Your task to perform on an android device: allow notifications from all sites in the chrome app Image 0: 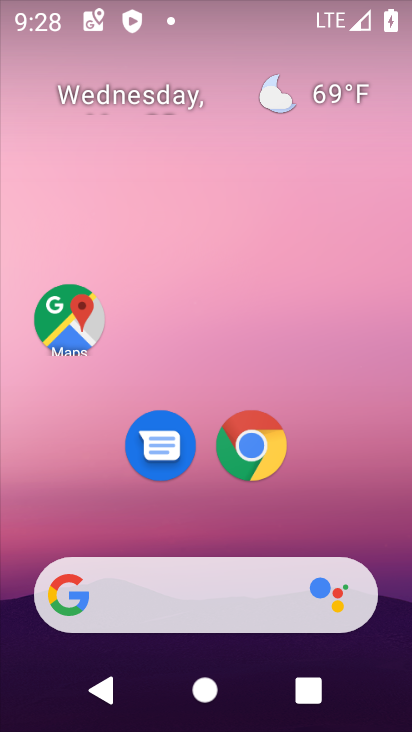
Step 0: click (269, 447)
Your task to perform on an android device: allow notifications from all sites in the chrome app Image 1: 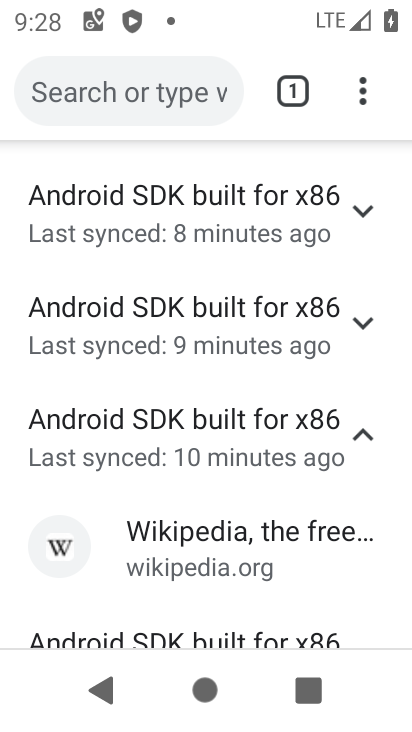
Step 1: drag from (355, 93) to (158, 489)
Your task to perform on an android device: allow notifications from all sites in the chrome app Image 2: 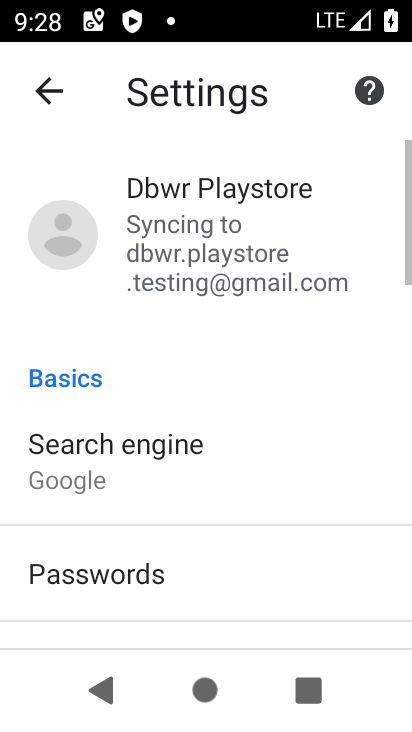
Step 2: drag from (237, 569) to (279, 241)
Your task to perform on an android device: allow notifications from all sites in the chrome app Image 3: 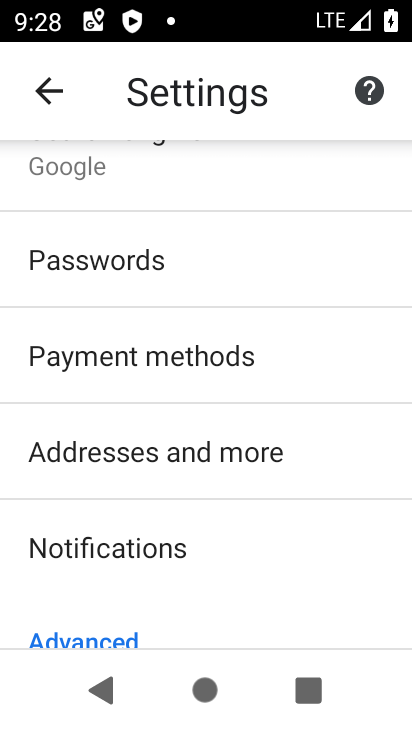
Step 3: drag from (261, 559) to (361, 178)
Your task to perform on an android device: allow notifications from all sites in the chrome app Image 4: 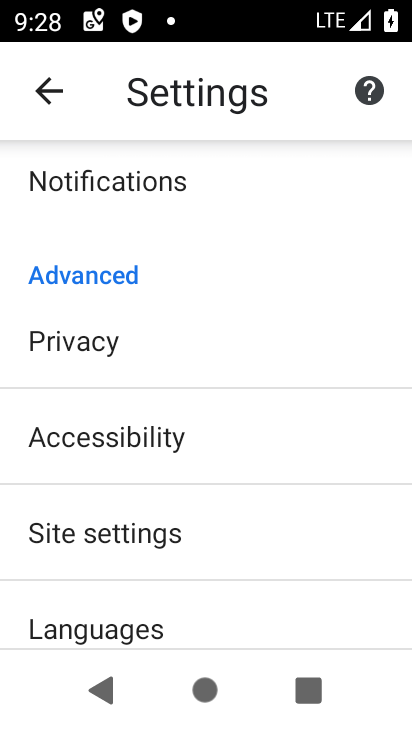
Step 4: click (149, 534)
Your task to perform on an android device: allow notifications from all sites in the chrome app Image 5: 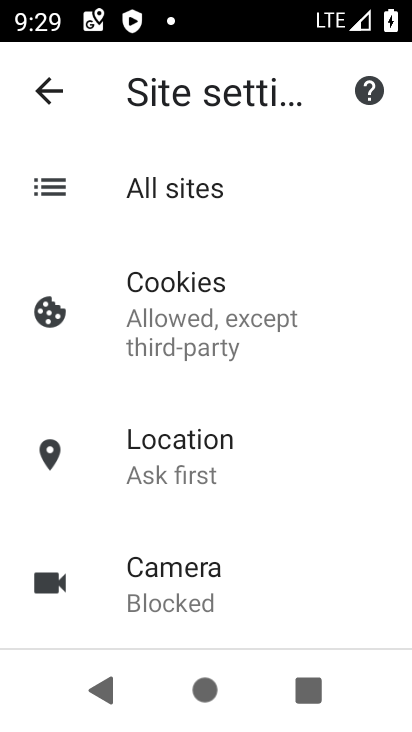
Step 5: click (209, 188)
Your task to perform on an android device: allow notifications from all sites in the chrome app Image 6: 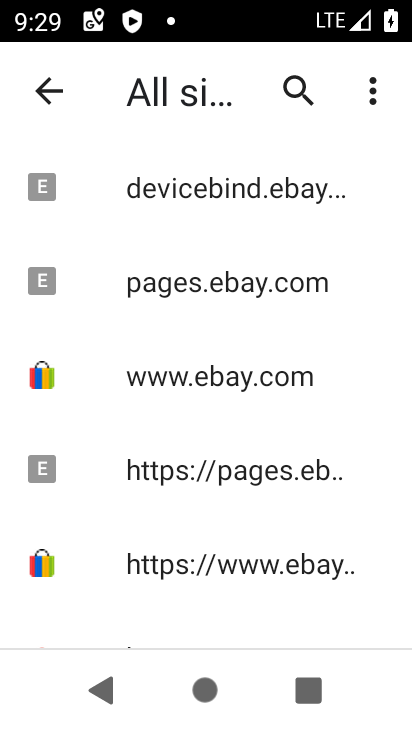
Step 6: drag from (261, 491) to (301, 144)
Your task to perform on an android device: allow notifications from all sites in the chrome app Image 7: 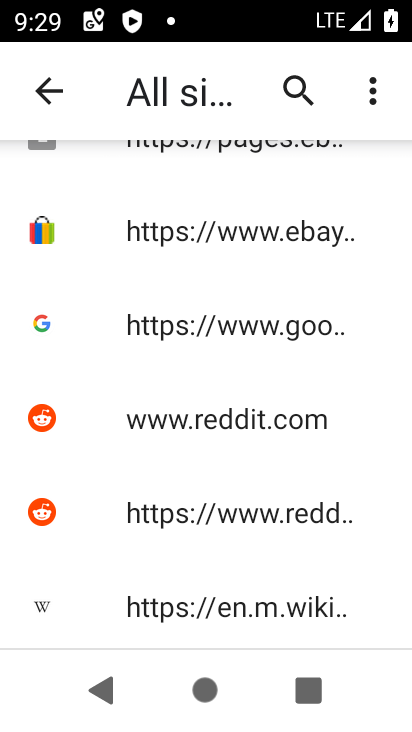
Step 7: drag from (246, 497) to (280, 227)
Your task to perform on an android device: allow notifications from all sites in the chrome app Image 8: 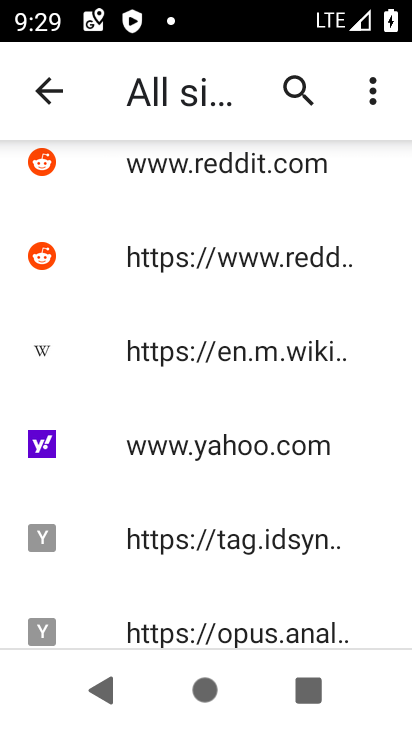
Step 8: drag from (252, 528) to (304, 207)
Your task to perform on an android device: allow notifications from all sites in the chrome app Image 9: 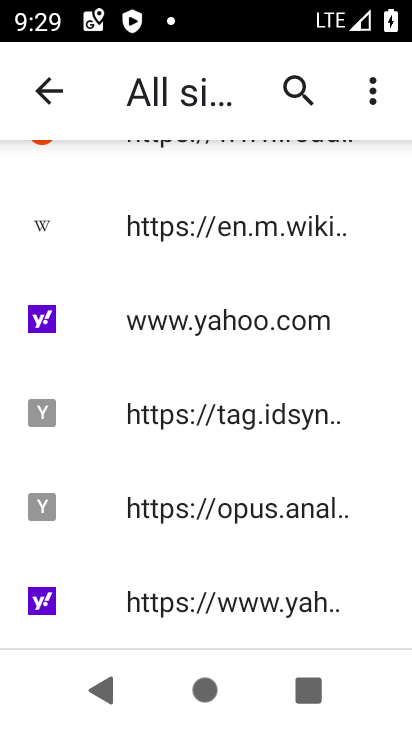
Step 9: drag from (262, 589) to (274, 332)
Your task to perform on an android device: allow notifications from all sites in the chrome app Image 10: 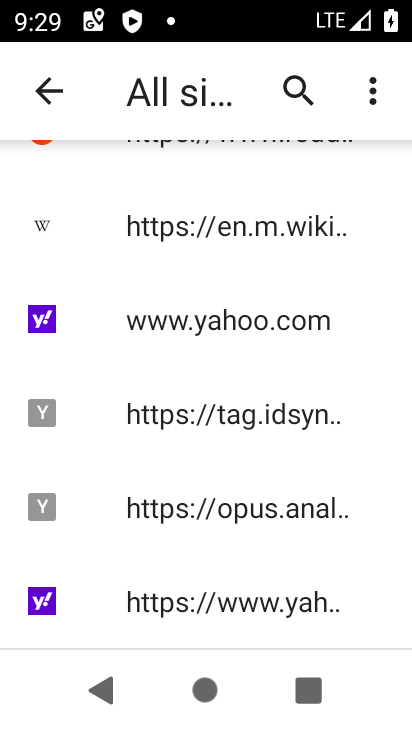
Step 10: drag from (243, 272) to (175, 551)
Your task to perform on an android device: allow notifications from all sites in the chrome app Image 11: 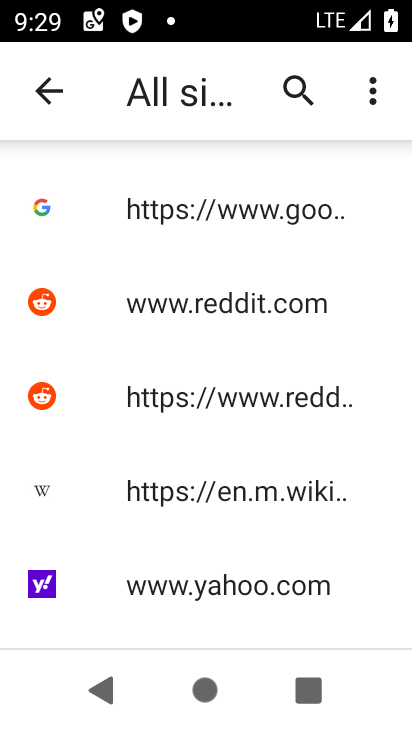
Step 11: drag from (205, 242) to (173, 453)
Your task to perform on an android device: allow notifications from all sites in the chrome app Image 12: 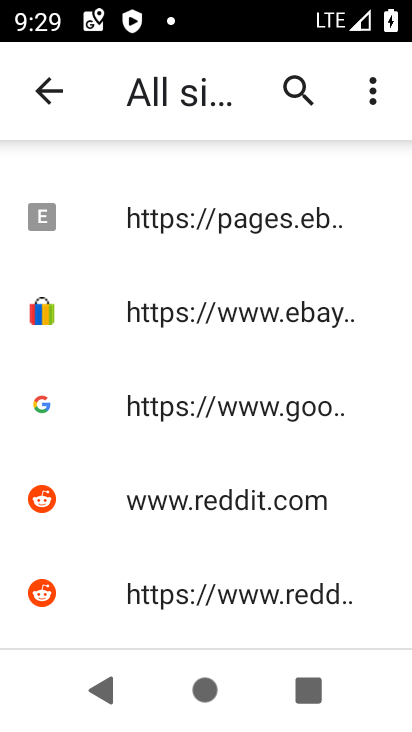
Step 12: drag from (230, 265) to (213, 484)
Your task to perform on an android device: allow notifications from all sites in the chrome app Image 13: 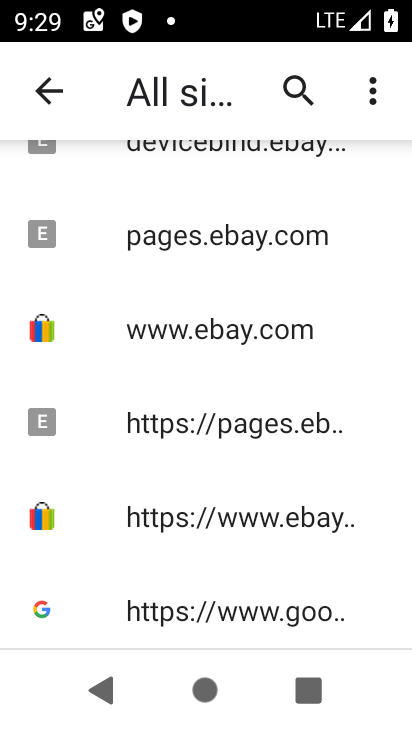
Step 13: drag from (287, 163) to (234, 429)
Your task to perform on an android device: allow notifications from all sites in the chrome app Image 14: 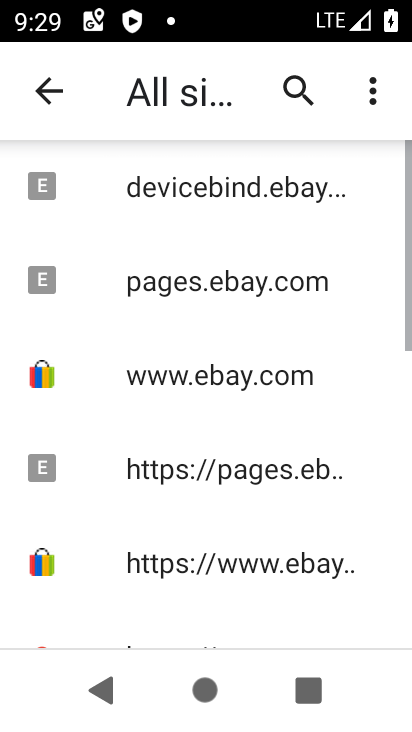
Step 14: click (271, 183)
Your task to perform on an android device: allow notifications from all sites in the chrome app Image 15: 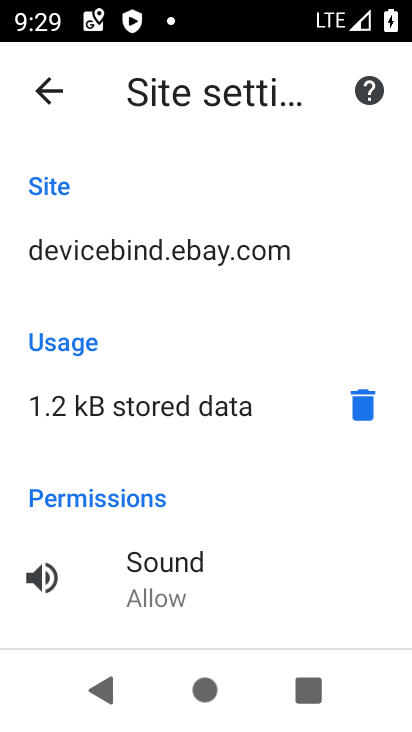
Step 15: task complete